Your task to perform on an android device: toggle data saver in the chrome app Image 0: 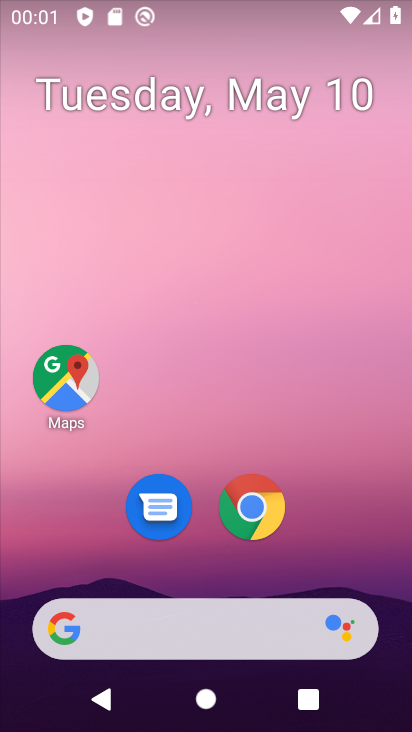
Step 0: click (233, 500)
Your task to perform on an android device: toggle data saver in the chrome app Image 1: 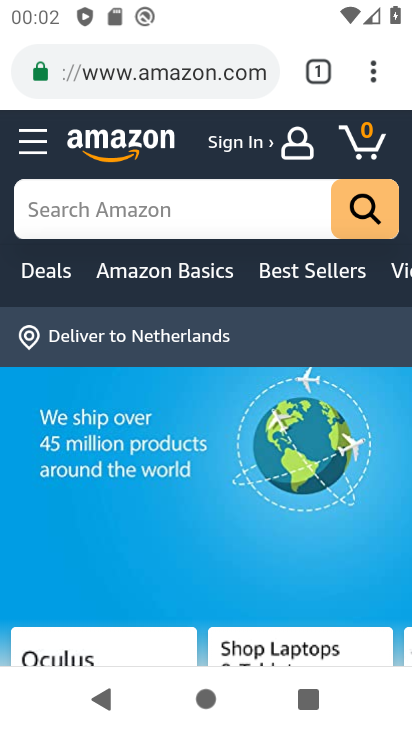
Step 1: click (380, 88)
Your task to perform on an android device: toggle data saver in the chrome app Image 2: 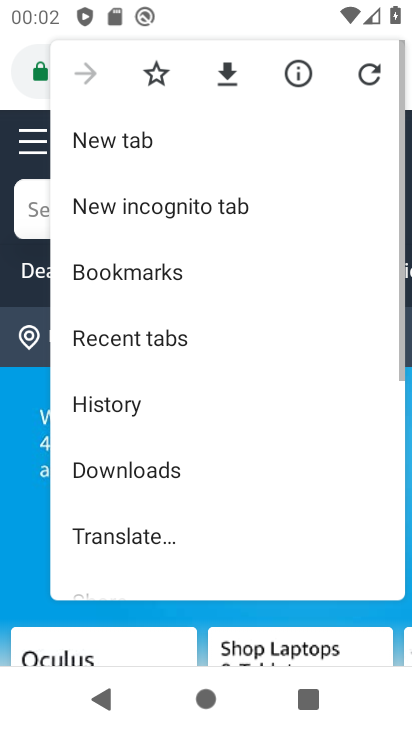
Step 2: drag from (248, 523) to (212, 245)
Your task to perform on an android device: toggle data saver in the chrome app Image 3: 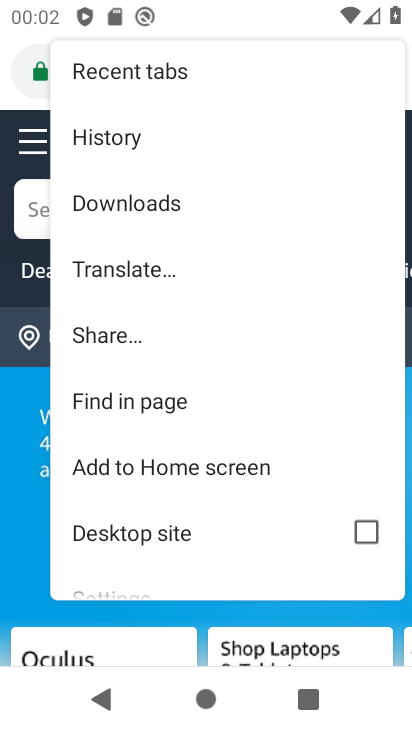
Step 3: drag from (143, 501) to (125, 377)
Your task to perform on an android device: toggle data saver in the chrome app Image 4: 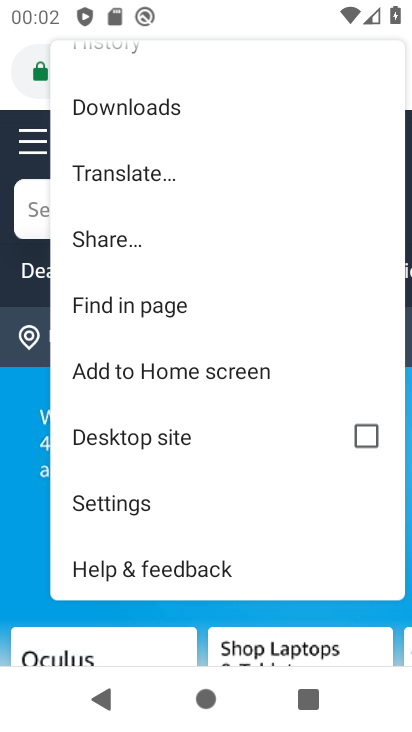
Step 4: click (137, 508)
Your task to perform on an android device: toggle data saver in the chrome app Image 5: 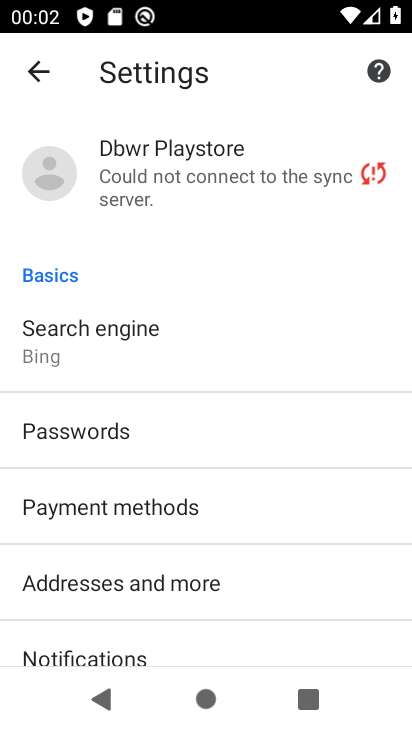
Step 5: drag from (226, 545) to (217, 255)
Your task to perform on an android device: toggle data saver in the chrome app Image 6: 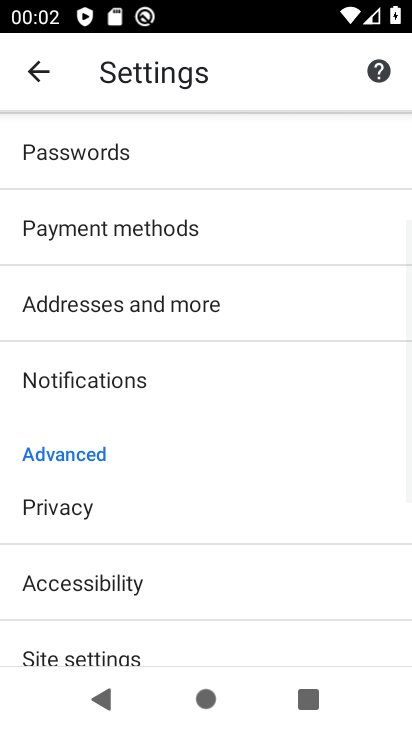
Step 6: drag from (185, 506) to (169, 286)
Your task to perform on an android device: toggle data saver in the chrome app Image 7: 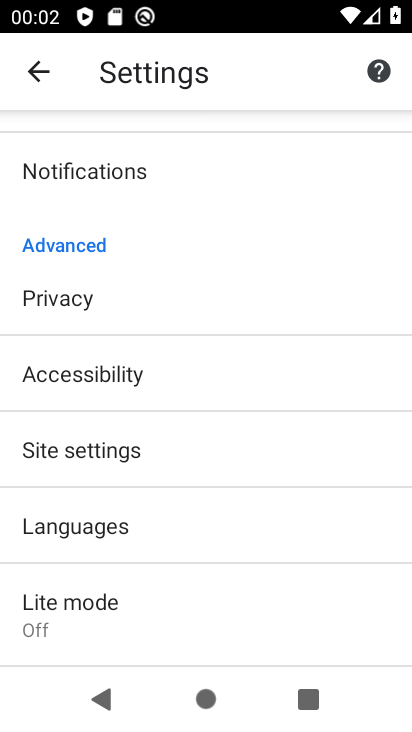
Step 7: click (131, 604)
Your task to perform on an android device: toggle data saver in the chrome app Image 8: 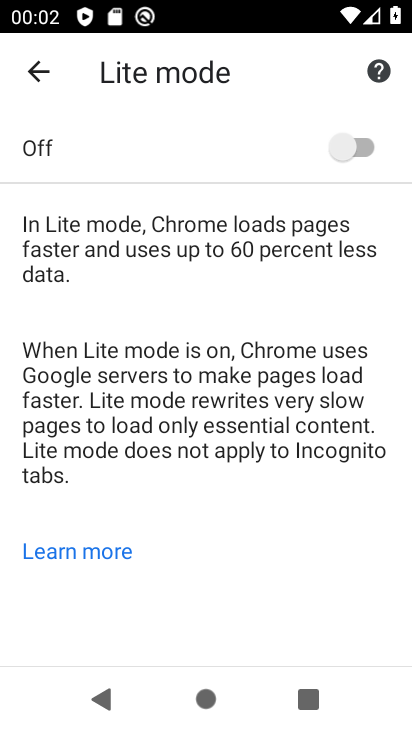
Step 8: click (374, 126)
Your task to perform on an android device: toggle data saver in the chrome app Image 9: 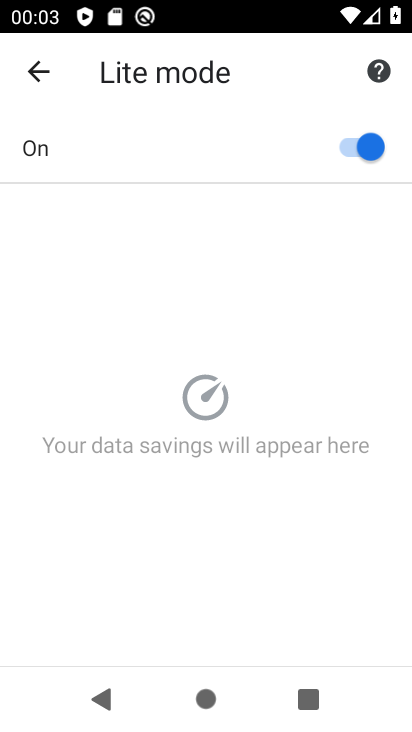
Step 9: task complete